Your task to perform on an android device: turn on bluetooth scan Image 0: 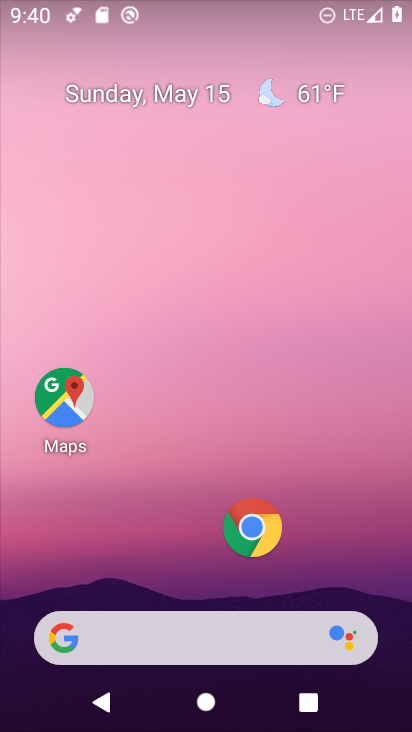
Step 0: press home button
Your task to perform on an android device: turn on bluetooth scan Image 1: 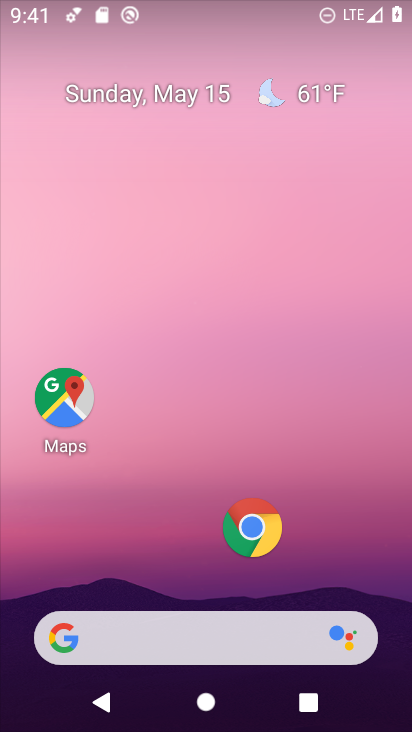
Step 1: drag from (216, 589) to (200, 74)
Your task to perform on an android device: turn on bluetooth scan Image 2: 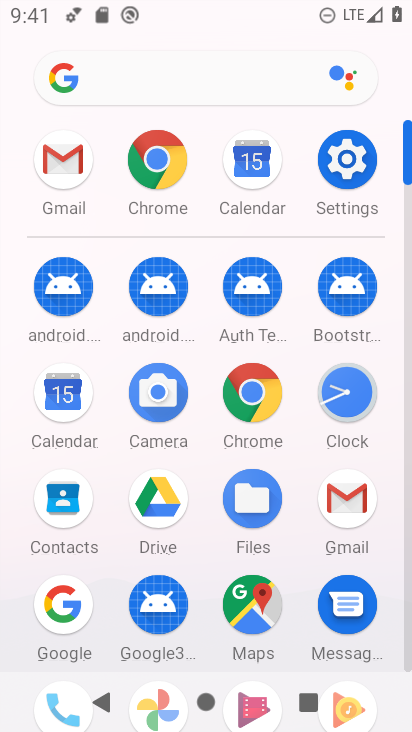
Step 2: click (344, 151)
Your task to perform on an android device: turn on bluetooth scan Image 3: 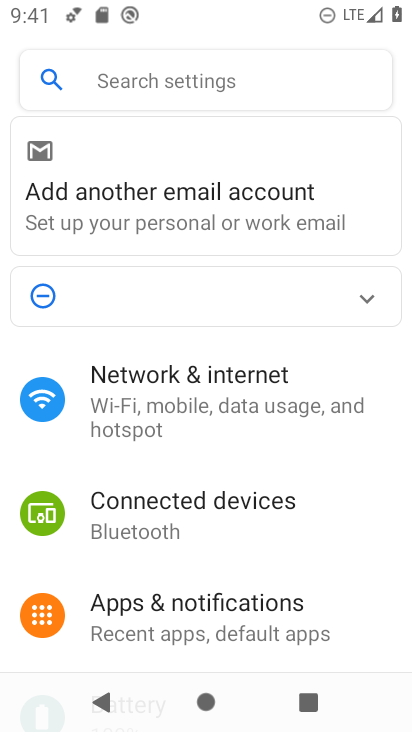
Step 3: drag from (196, 581) to (192, 117)
Your task to perform on an android device: turn on bluetooth scan Image 4: 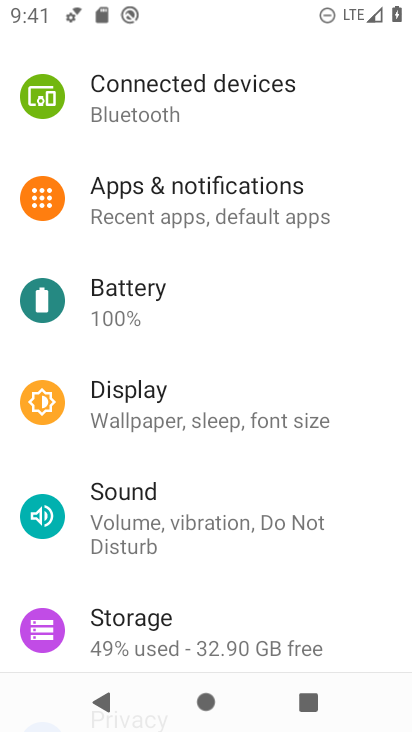
Step 4: drag from (194, 618) to (195, 208)
Your task to perform on an android device: turn on bluetooth scan Image 5: 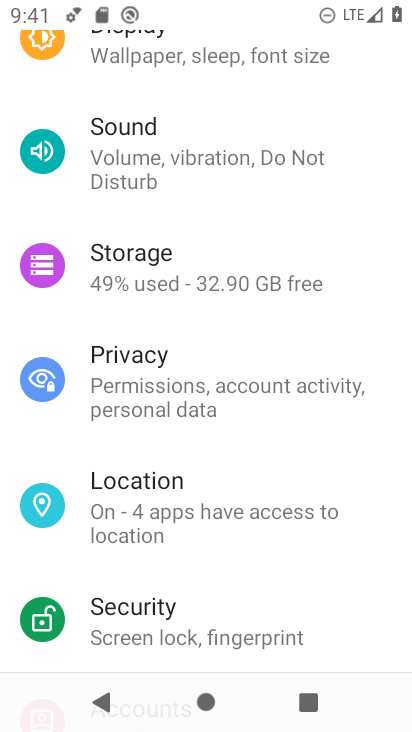
Step 5: click (173, 502)
Your task to perform on an android device: turn on bluetooth scan Image 6: 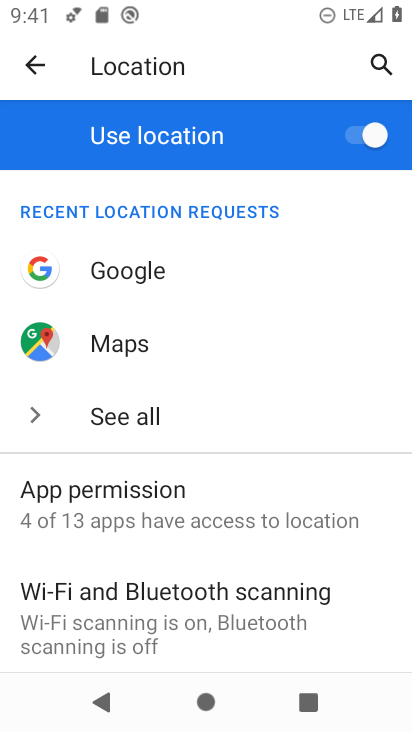
Step 6: click (223, 614)
Your task to perform on an android device: turn on bluetooth scan Image 7: 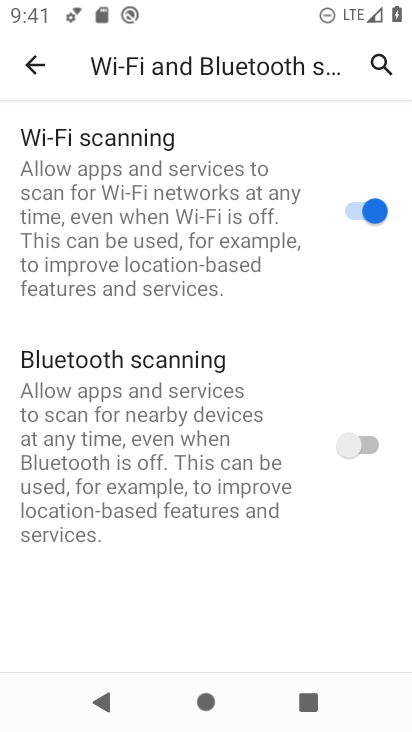
Step 7: click (369, 442)
Your task to perform on an android device: turn on bluetooth scan Image 8: 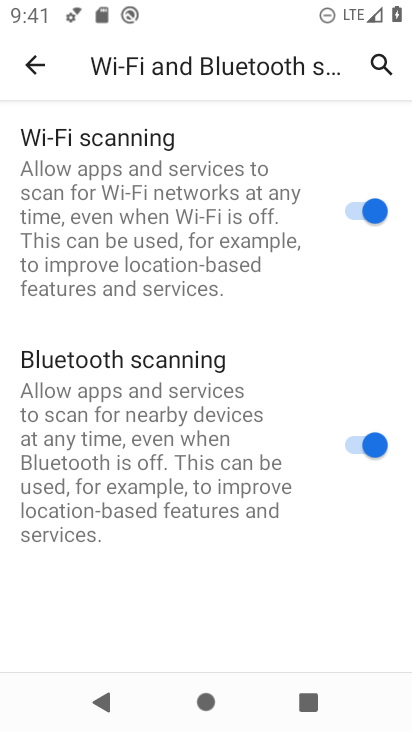
Step 8: task complete